Your task to perform on an android device: Show me the alarms in the clock app Image 0: 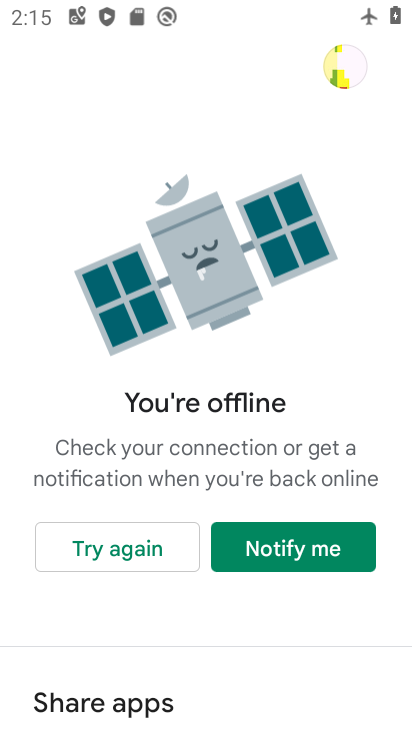
Step 0: press home button
Your task to perform on an android device: Show me the alarms in the clock app Image 1: 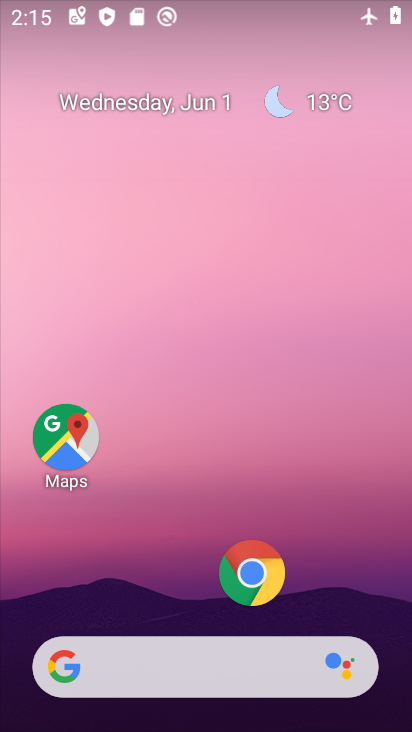
Step 1: drag from (230, 643) to (321, 45)
Your task to perform on an android device: Show me the alarms in the clock app Image 2: 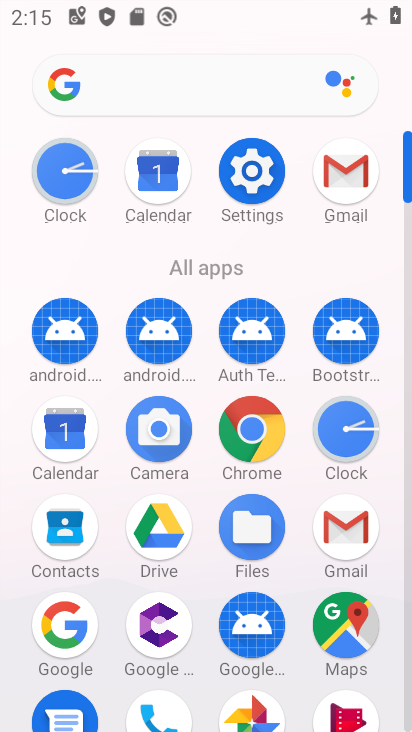
Step 2: click (352, 435)
Your task to perform on an android device: Show me the alarms in the clock app Image 3: 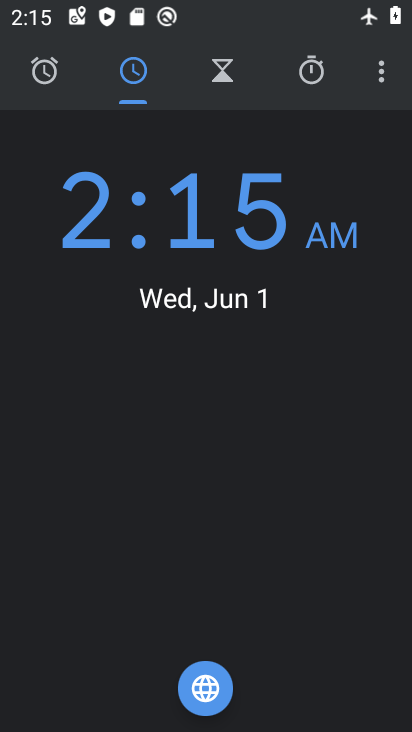
Step 3: click (44, 76)
Your task to perform on an android device: Show me the alarms in the clock app Image 4: 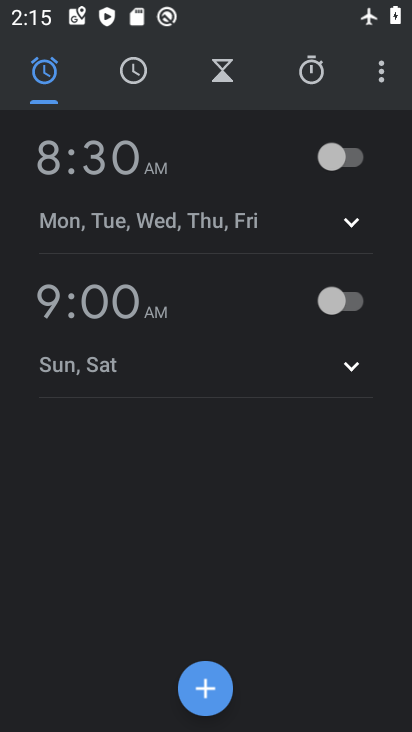
Step 4: task complete